Your task to perform on an android device: delete location history Image 0: 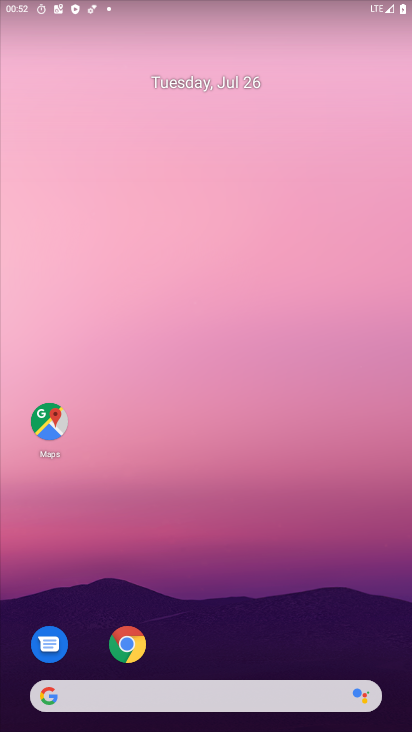
Step 0: drag from (257, 667) to (330, 29)
Your task to perform on an android device: delete location history Image 1: 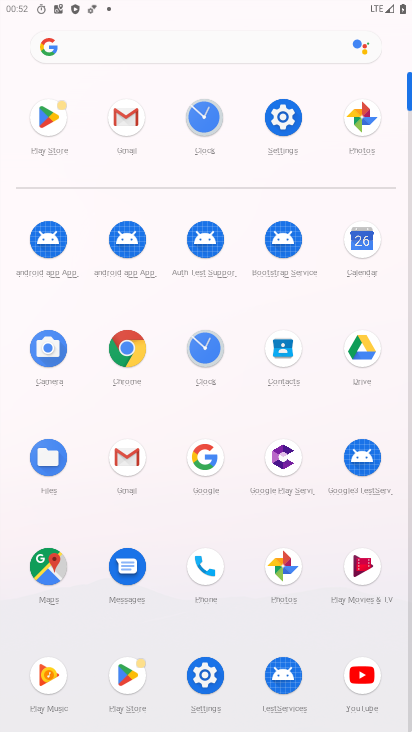
Step 1: click (43, 564)
Your task to perform on an android device: delete location history Image 2: 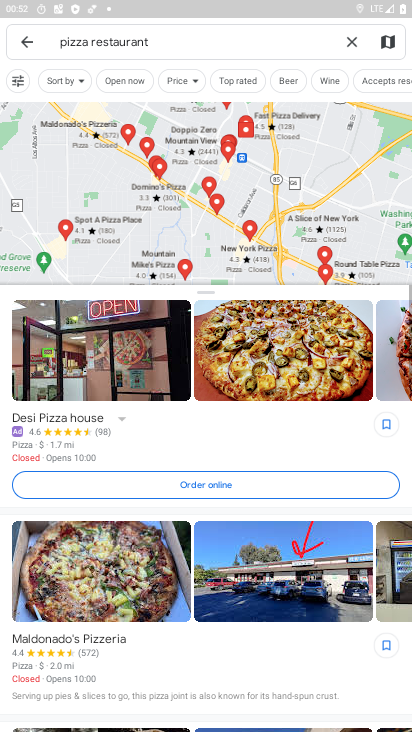
Step 2: click (353, 40)
Your task to perform on an android device: delete location history Image 3: 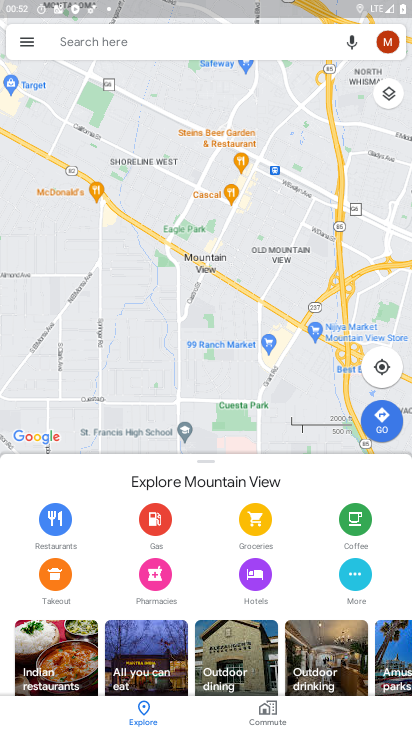
Step 3: click (24, 41)
Your task to perform on an android device: delete location history Image 4: 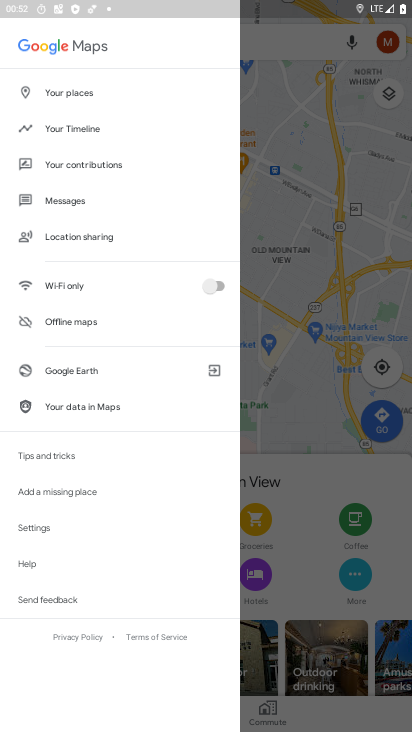
Step 4: click (64, 133)
Your task to perform on an android device: delete location history Image 5: 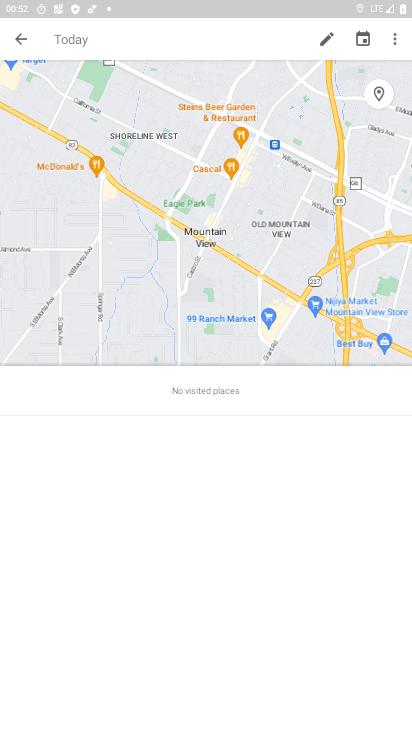
Step 5: click (398, 47)
Your task to perform on an android device: delete location history Image 6: 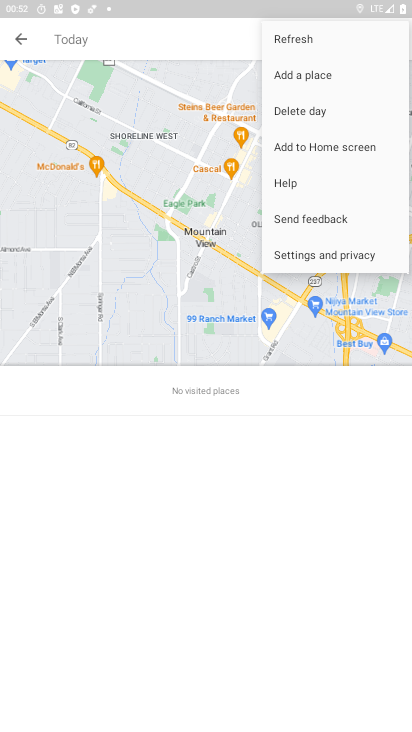
Step 6: click (310, 258)
Your task to perform on an android device: delete location history Image 7: 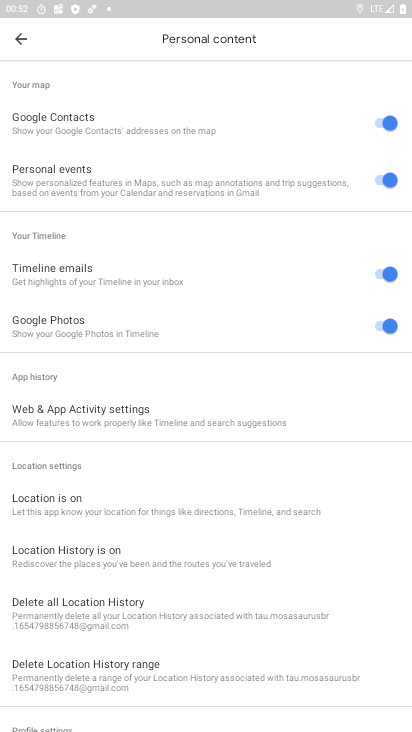
Step 7: click (43, 604)
Your task to perform on an android device: delete location history Image 8: 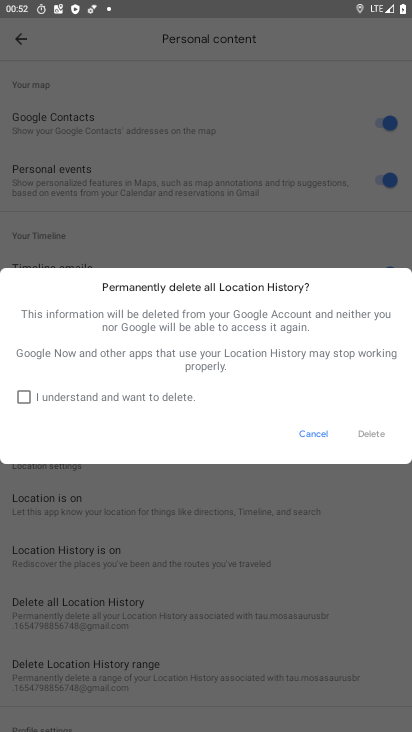
Step 8: click (21, 401)
Your task to perform on an android device: delete location history Image 9: 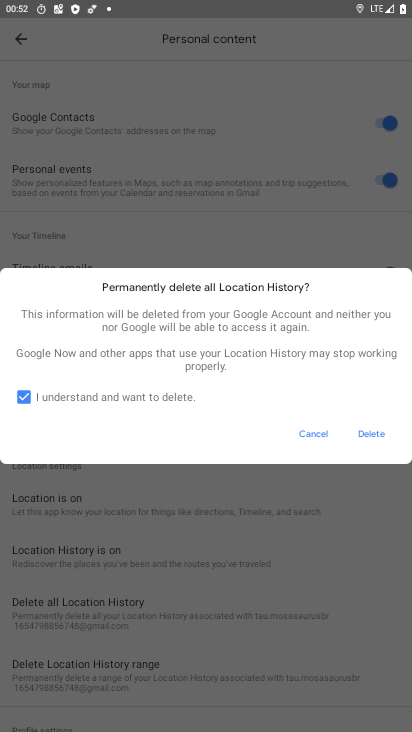
Step 9: click (387, 439)
Your task to perform on an android device: delete location history Image 10: 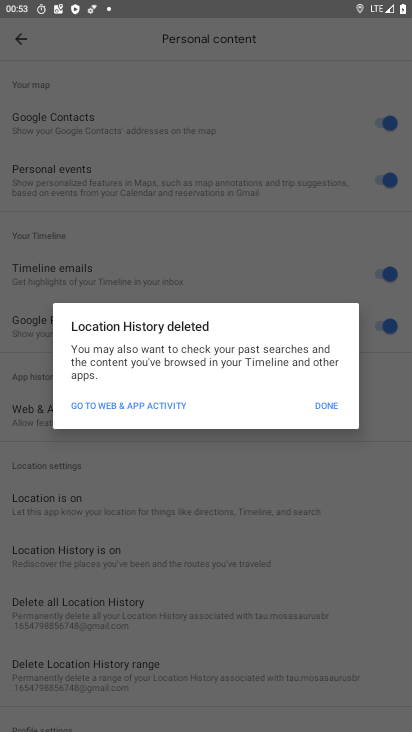
Step 10: click (324, 414)
Your task to perform on an android device: delete location history Image 11: 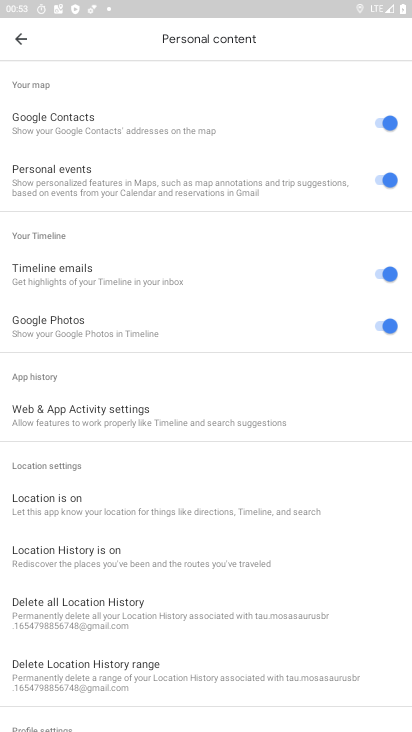
Step 11: task complete